Your task to perform on an android device: Open display settings Image 0: 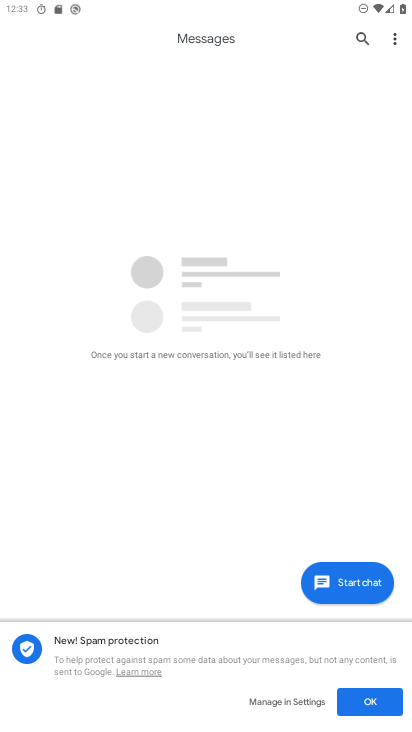
Step 0: press home button
Your task to perform on an android device: Open display settings Image 1: 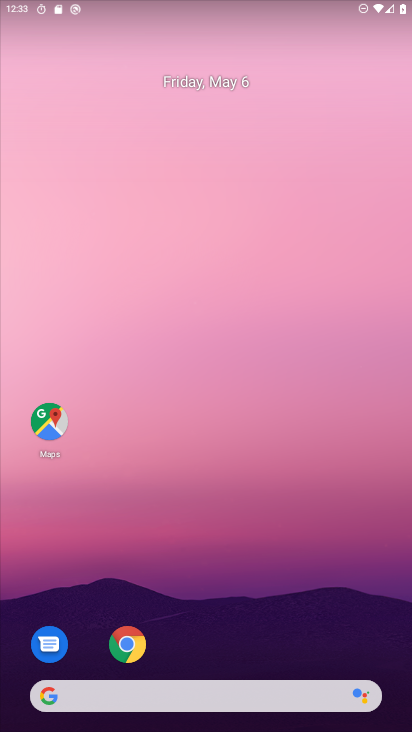
Step 1: drag from (362, 645) to (315, 135)
Your task to perform on an android device: Open display settings Image 2: 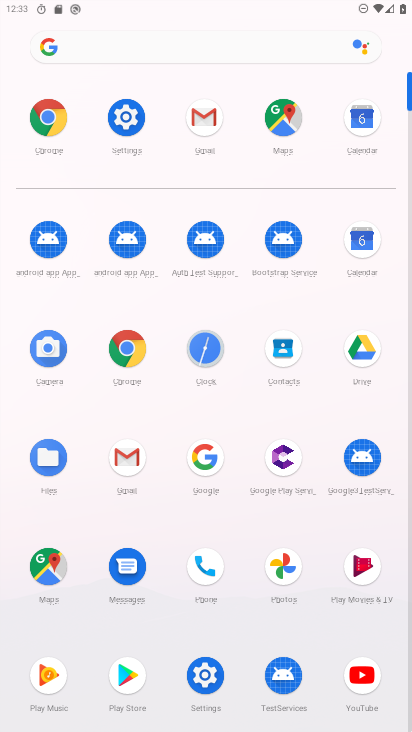
Step 2: click (207, 669)
Your task to perform on an android device: Open display settings Image 3: 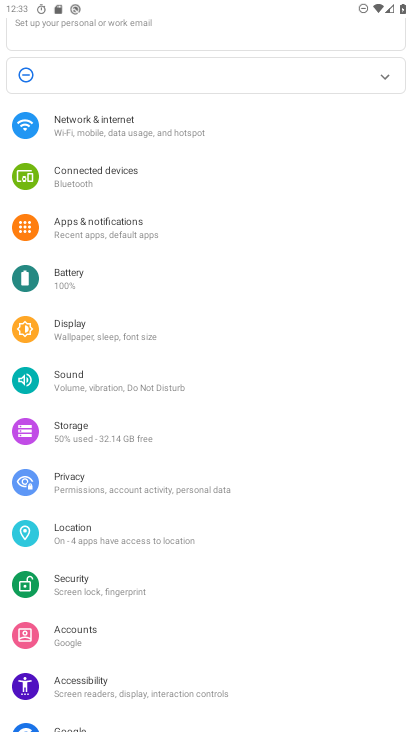
Step 3: click (27, 326)
Your task to perform on an android device: Open display settings Image 4: 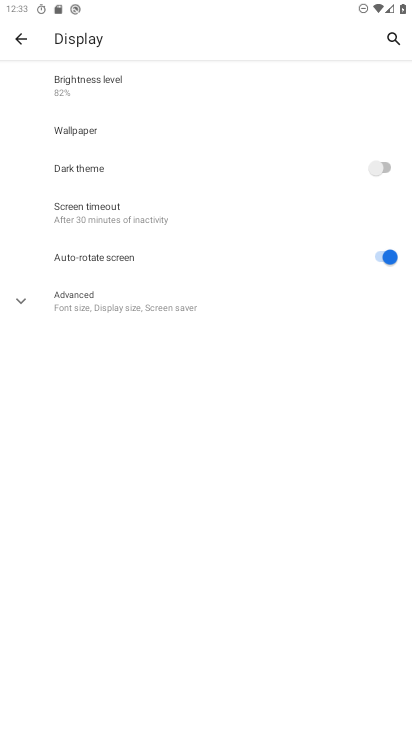
Step 4: click (134, 295)
Your task to perform on an android device: Open display settings Image 5: 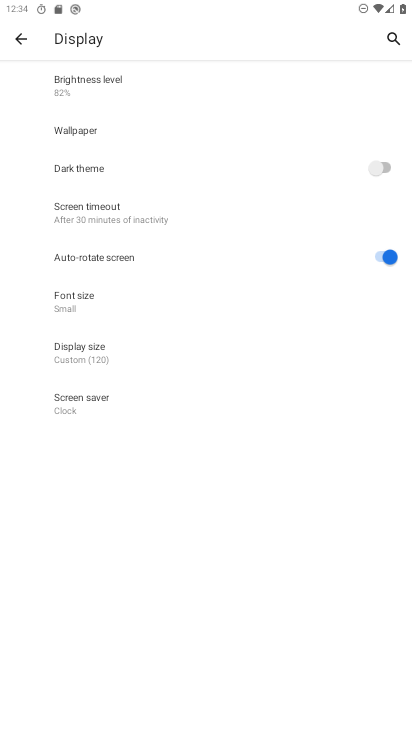
Step 5: task complete